Your task to perform on an android device: Open Youtube and go to "Your channel" Image 0: 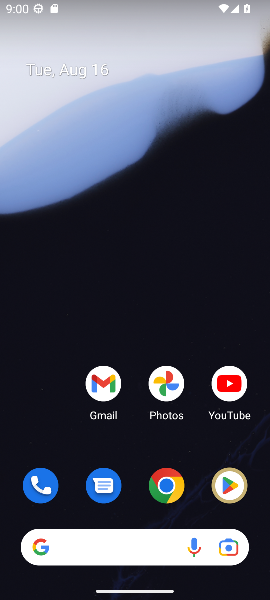
Step 0: click (234, 383)
Your task to perform on an android device: Open Youtube and go to "Your channel" Image 1: 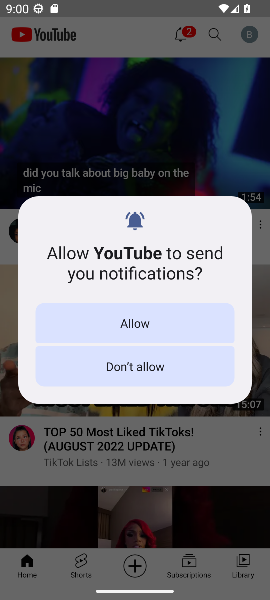
Step 1: click (131, 322)
Your task to perform on an android device: Open Youtube and go to "Your channel" Image 2: 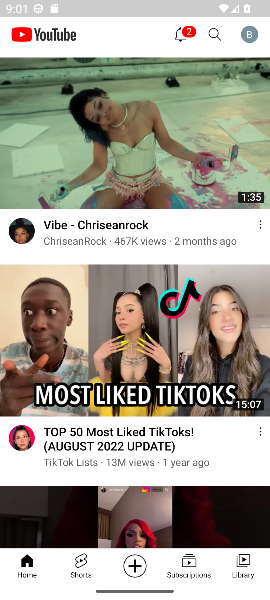
Step 2: click (253, 34)
Your task to perform on an android device: Open Youtube and go to "Your channel" Image 3: 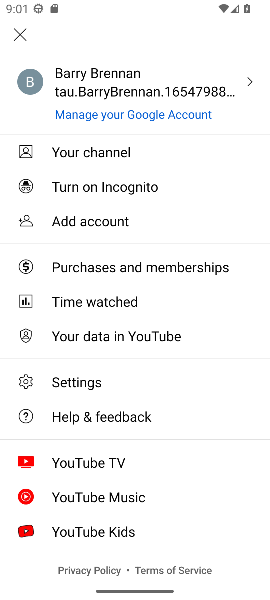
Step 3: click (78, 153)
Your task to perform on an android device: Open Youtube and go to "Your channel" Image 4: 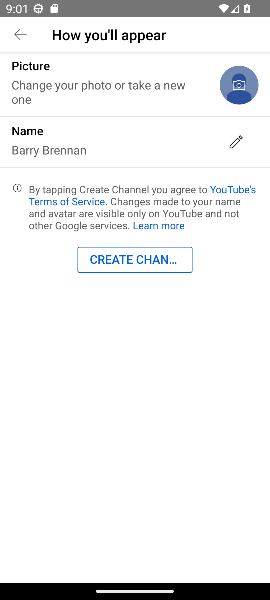
Step 4: task complete